Your task to perform on an android device: When is my next appointment? Image 0: 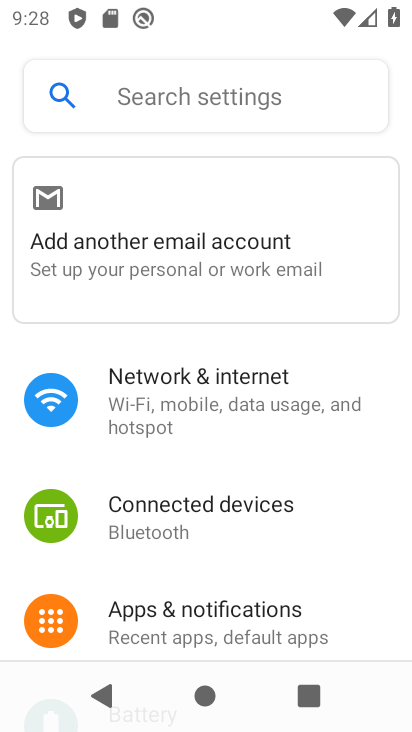
Step 0: press home button
Your task to perform on an android device: When is my next appointment? Image 1: 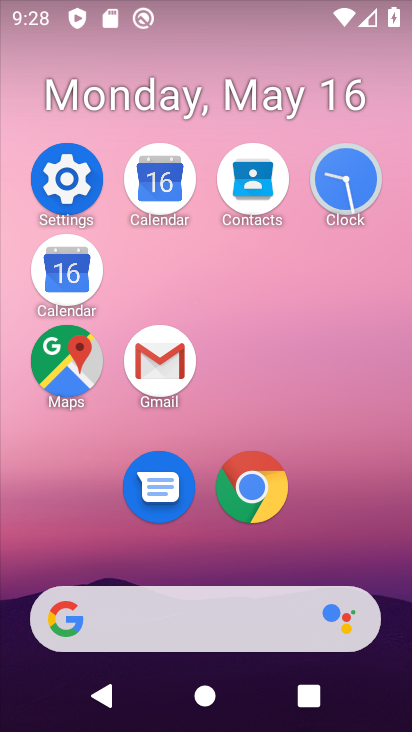
Step 1: click (137, 187)
Your task to perform on an android device: When is my next appointment? Image 2: 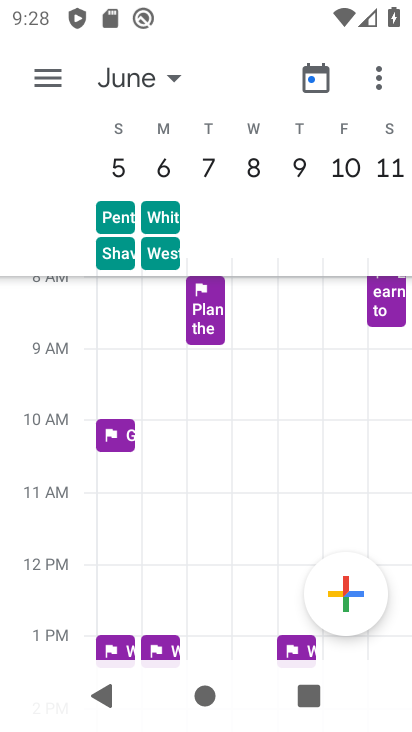
Step 2: click (139, 70)
Your task to perform on an android device: When is my next appointment? Image 3: 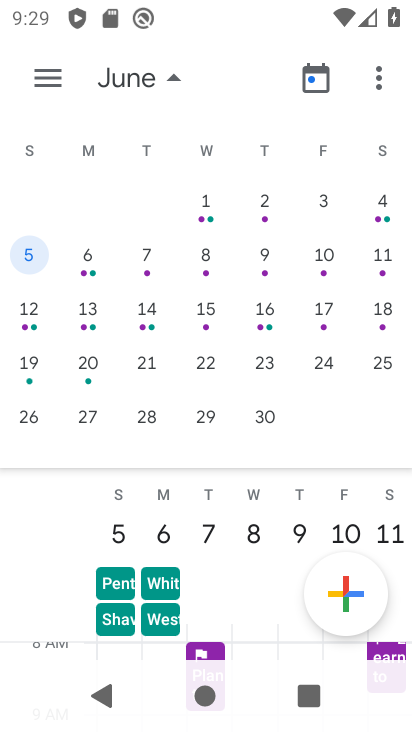
Step 3: drag from (169, 353) to (357, 299)
Your task to perform on an android device: When is my next appointment? Image 4: 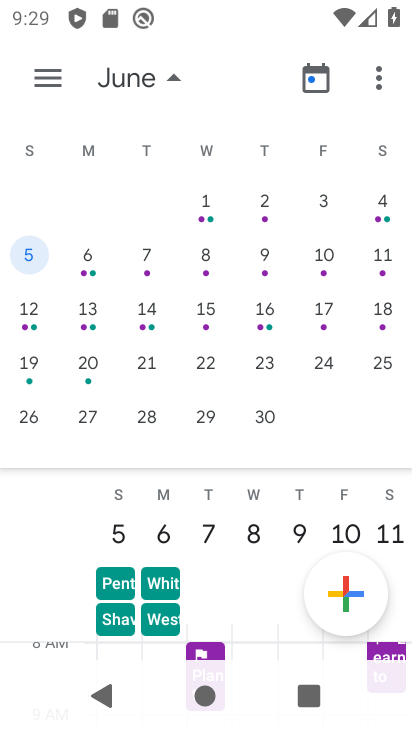
Step 4: drag from (40, 312) to (404, 469)
Your task to perform on an android device: When is my next appointment? Image 5: 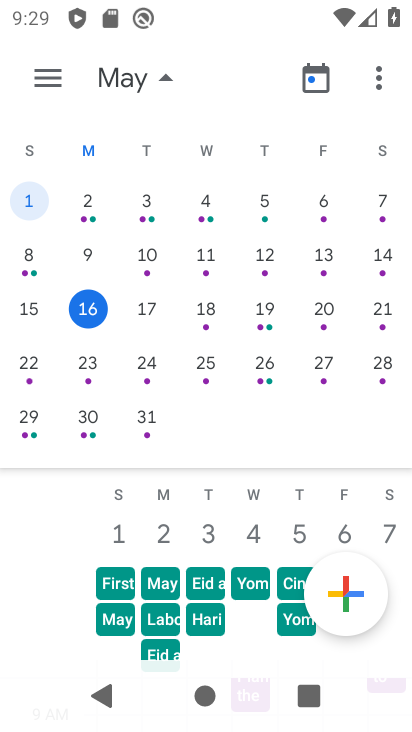
Step 5: click (208, 315)
Your task to perform on an android device: When is my next appointment? Image 6: 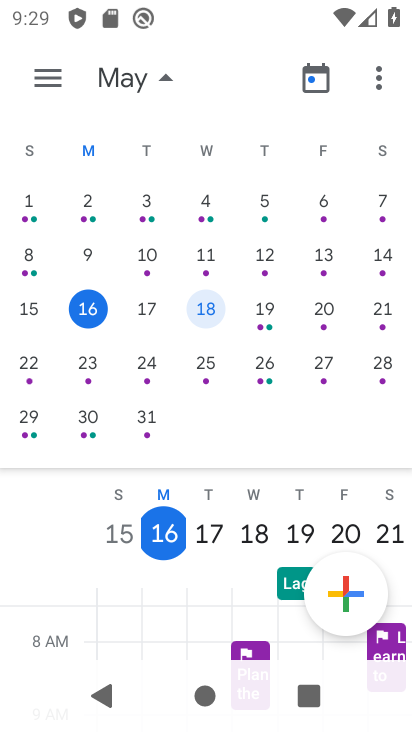
Step 6: click (161, 524)
Your task to perform on an android device: When is my next appointment? Image 7: 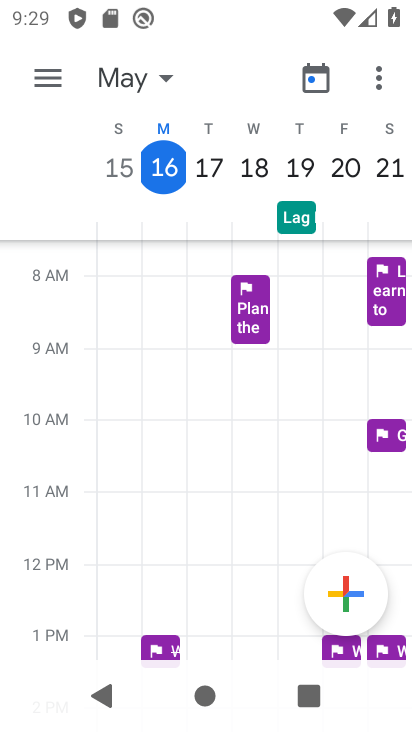
Step 7: task complete